Your task to perform on an android device: toggle pop-ups in chrome Image 0: 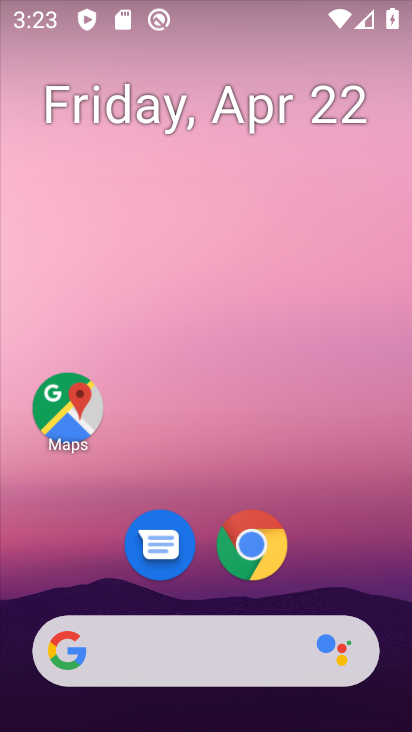
Step 0: click (253, 547)
Your task to perform on an android device: toggle pop-ups in chrome Image 1: 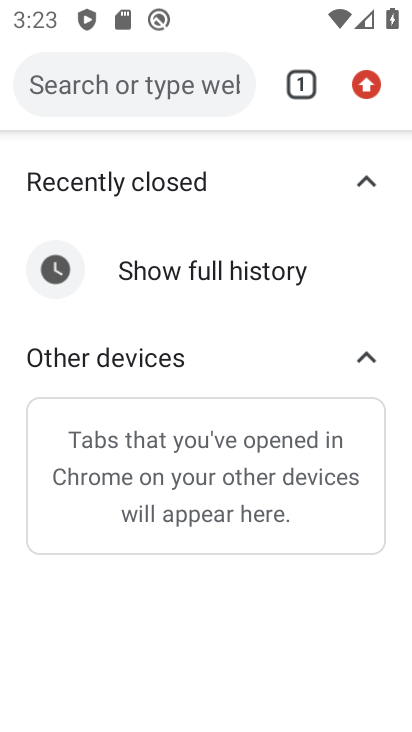
Step 1: click (365, 89)
Your task to perform on an android device: toggle pop-ups in chrome Image 2: 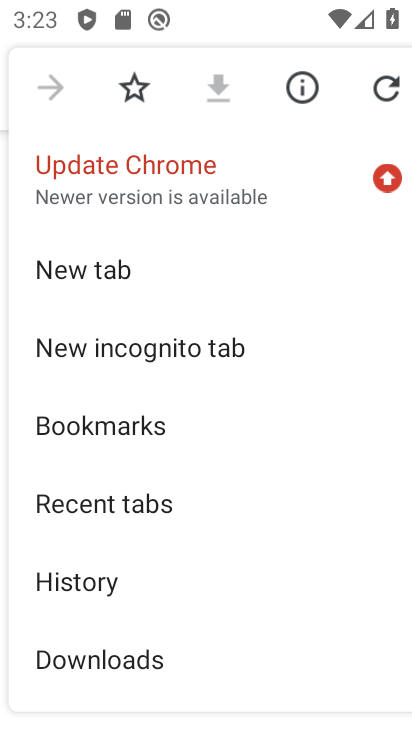
Step 2: drag from (213, 640) to (278, 278)
Your task to perform on an android device: toggle pop-ups in chrome Image 3: 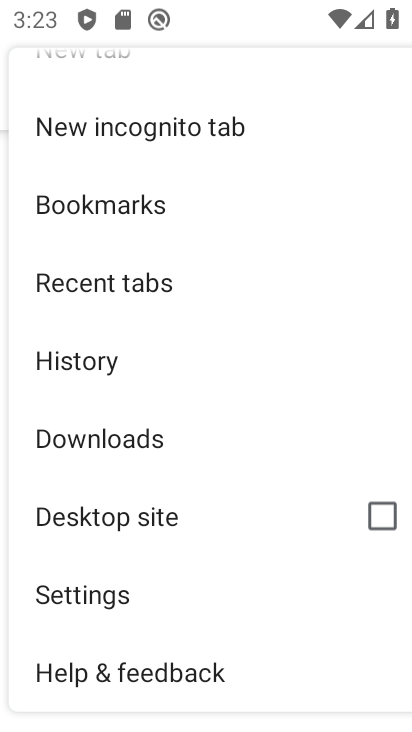
Step 3: click (67, 593)
Your task to perform on an android device: toggle pop-ups in chrome Image 4: 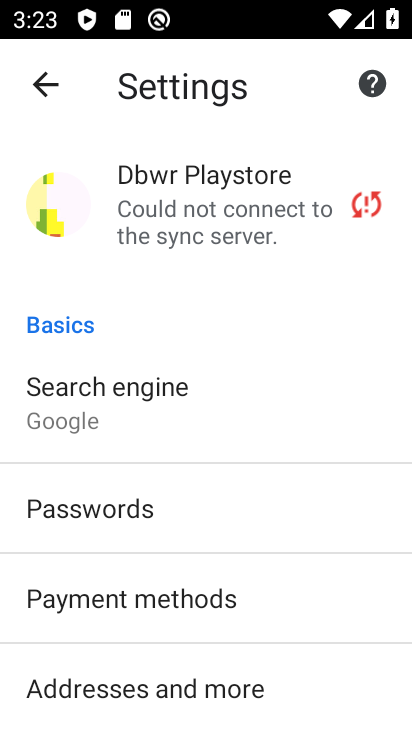
Step 4: drag from (302, 666) to (306, 312)
Your task to perform on an android device: toggle pop-ups in chrome Image 5: 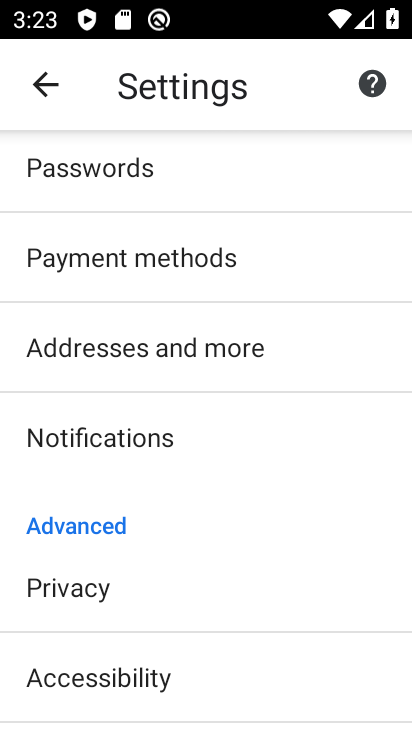
Step 5: drag from (278, 586) to (325, 198)
Your task to perform on an android device: toggle pop-ups in chrome Image 6: 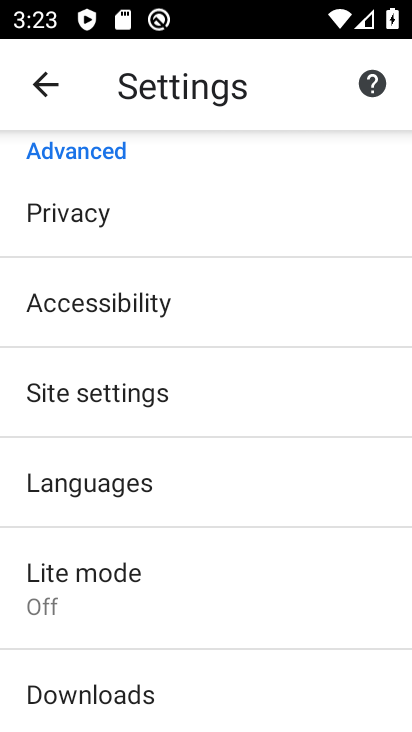
Step 6: click (58, 386)
Your task to perform on an android device: toggle pop-ups in chrome Image 7: 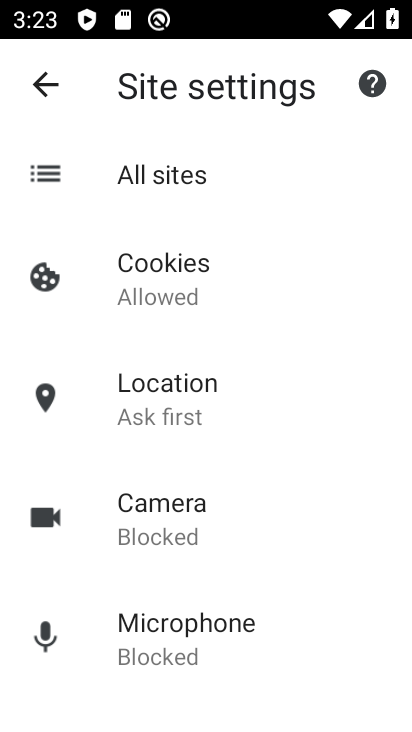
Step 7: drag from (308, 662) to (260, 230)
Your task to perform on an android device: toggle pop-ups in chrome Image 8: 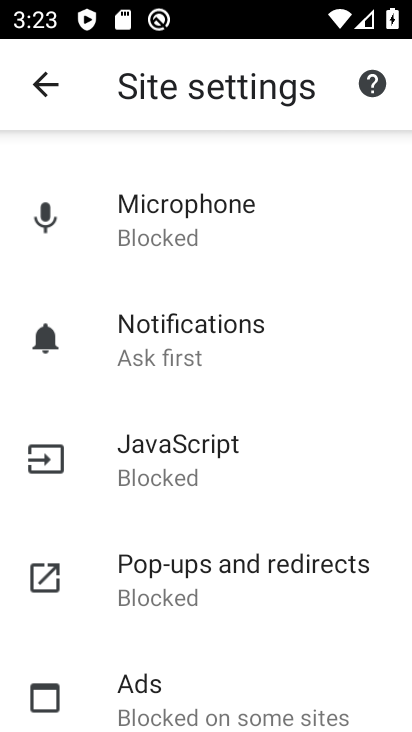
Step 8: click (141, 573)
Your task to perform on an android device: toggle pop-ups in chrome Image 9: 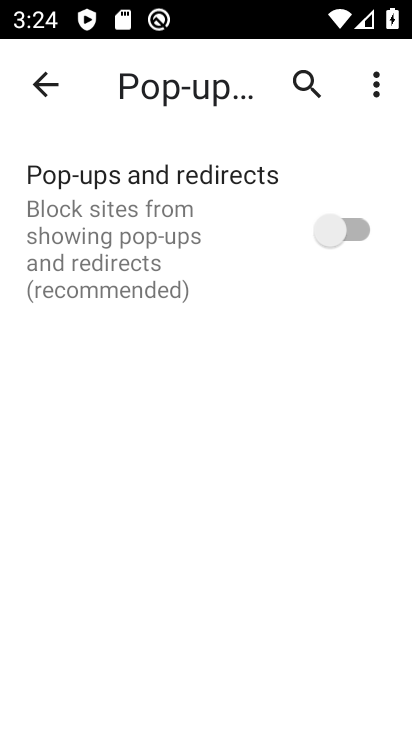
Step 9: click (354, 226)
Your task to perform on an android device: toggle pop-ups in chrome Image 10: 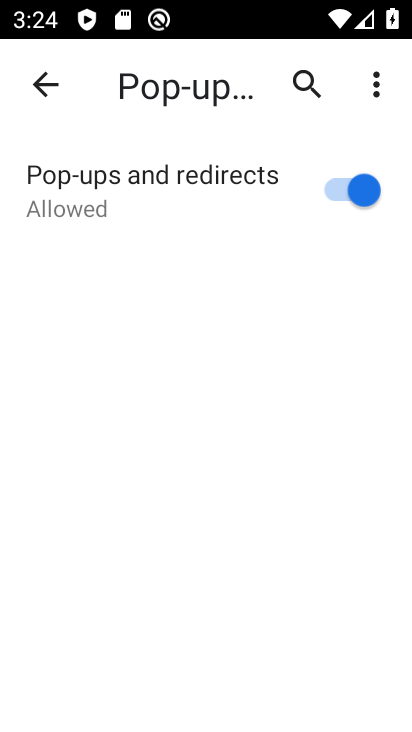
Step 10: task complete